Your task to perform on an android device: change the clock display to analog Image 0: 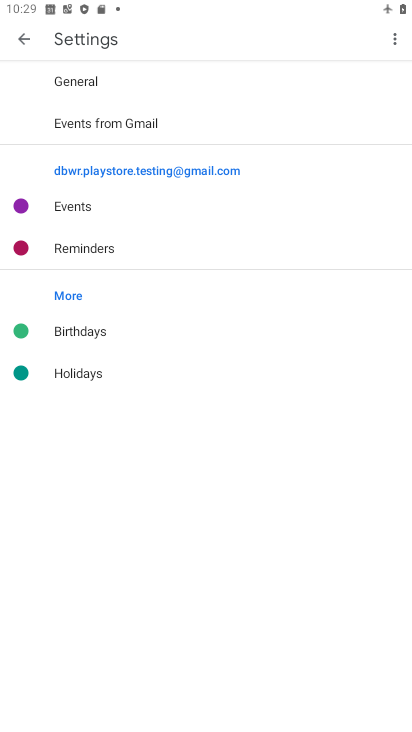
Step 0: press home button
Your task to perform on an android device: change the clock display to analog Image 1: 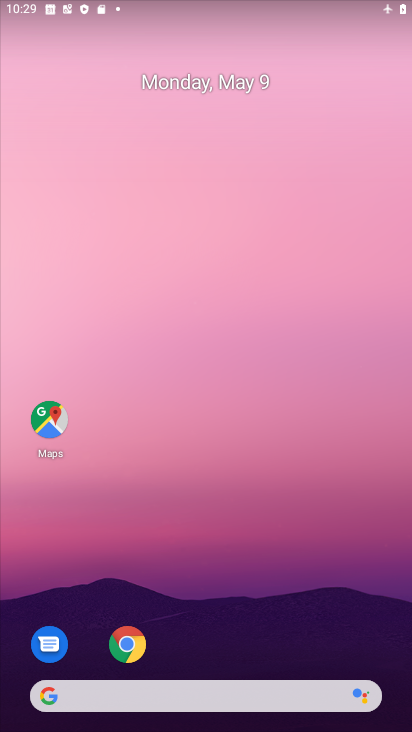
Step 1: drag from (230, 644) to (303, 18)
Your task to perform on an android device: change the clock display to analog Image 2: 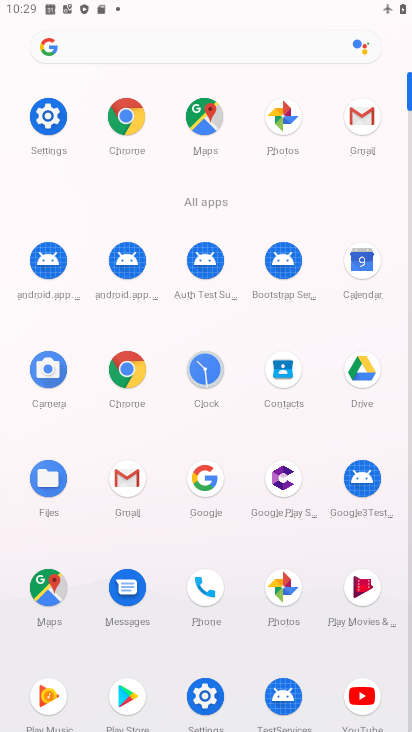
Step 2: click (200, 387)
Your task to perform on an android device: change the clock display to analog Image 3: 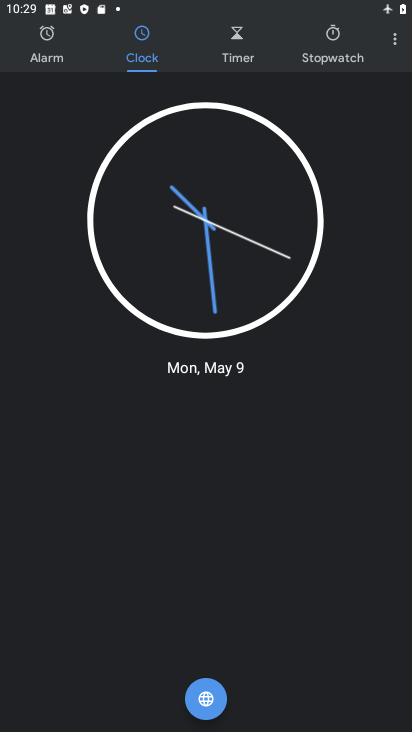
Step 3: click (395, 43)
Your task to perform on an android device: change the clock display to analog Image 4: 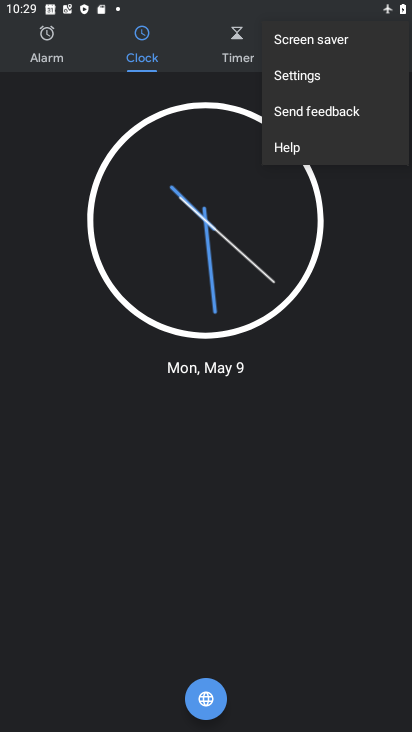
Step 4: click (315, 81)
Your task to perform on an android device: change the clock display to analog Image 5: 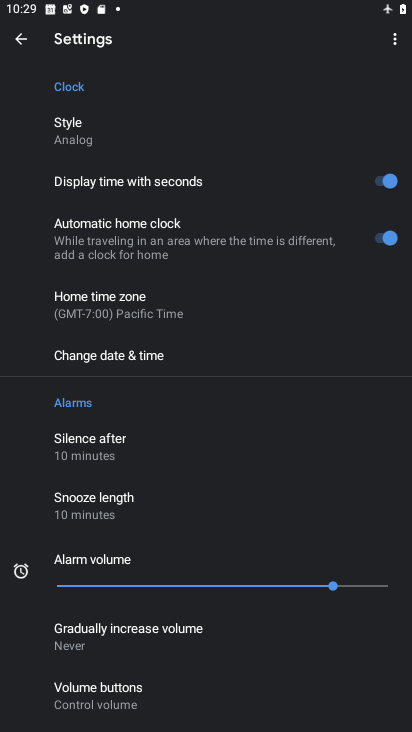
Step 5: task complete